Your task to perform on an android device: Open calendar and show me the fourth week of next month Image 0: 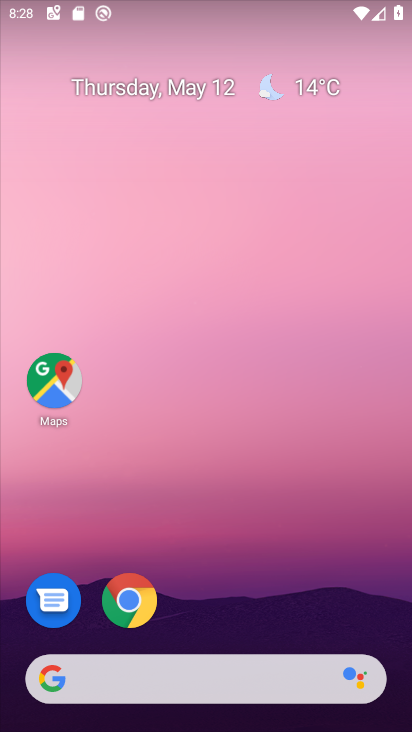
Step 0: drag from (331, 587) to (44, 243)
Your task to perform on an android device: Open calendar and show me the fourth week of next month Image 1: 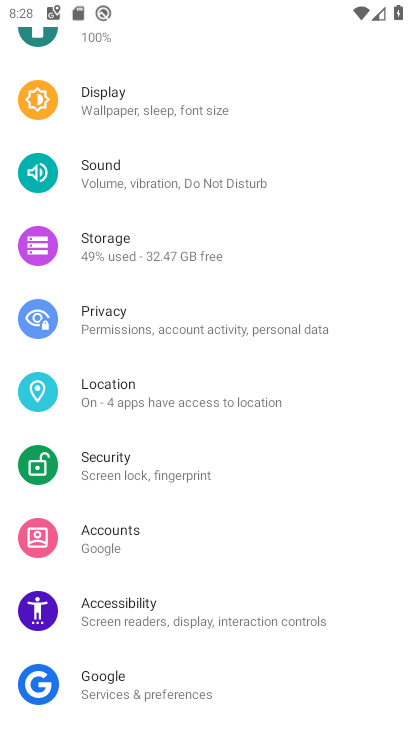
Step 1: press home button
Your task to perform on an android device: Open calendar and show me the fourth week of next month Image 2: 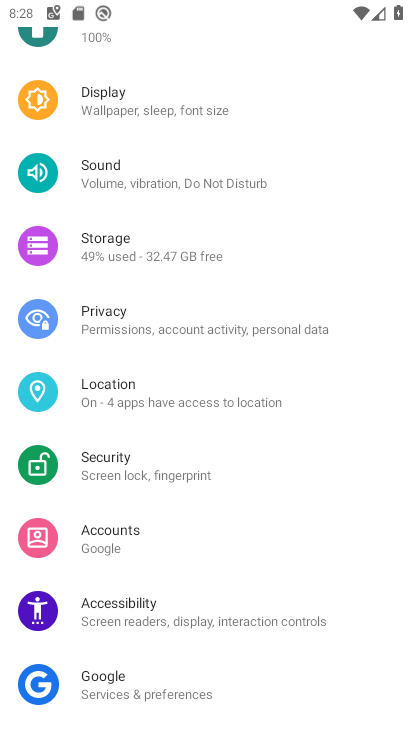
Step 2: press home button
Your task to perform on an android device: Open calendar and show me the fourth week of next month Image 3: 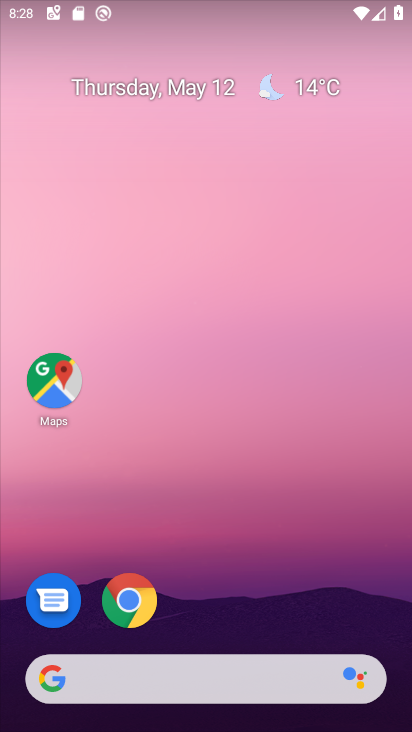
Step 3: drag from (219, 458) to (37, 92)
Your task to perform on an android device: Open calendar and show me the fourth week of next month Image 4: 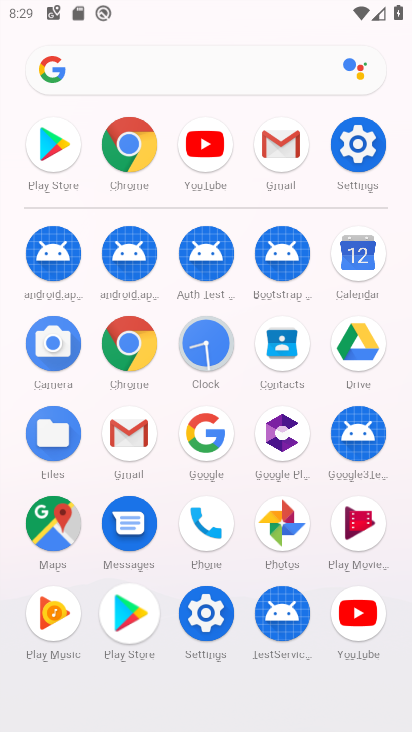
Step 4: click (359, 249)
Your task to perform on an android device: Open calendar and show me the fourth week of next month Image 5: 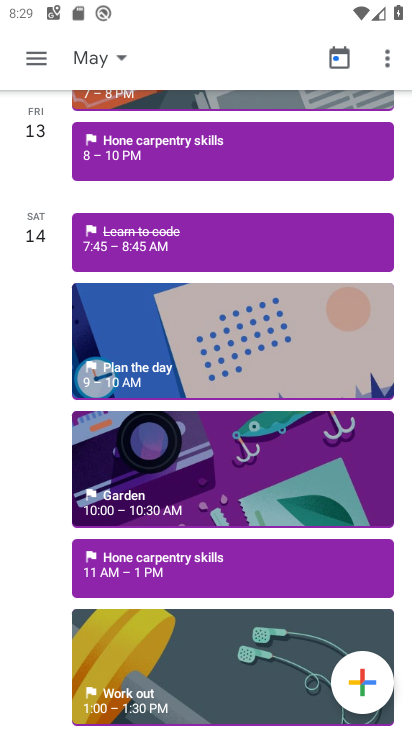
Step 5: drag from (145, 195) to (162, 446)
Your task to perform on an android device: Open calendar and show me the fourth week of next month Image 6: 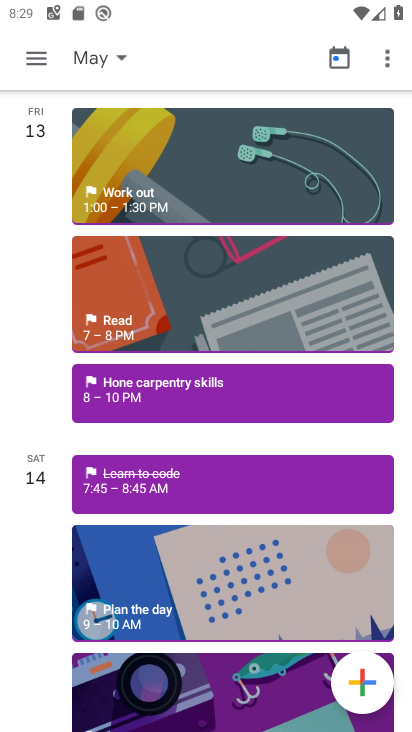
Step 6: click (123, 63)
Your task to perform on an android device: Open calendar and show me the fourth week of next month Image 7: 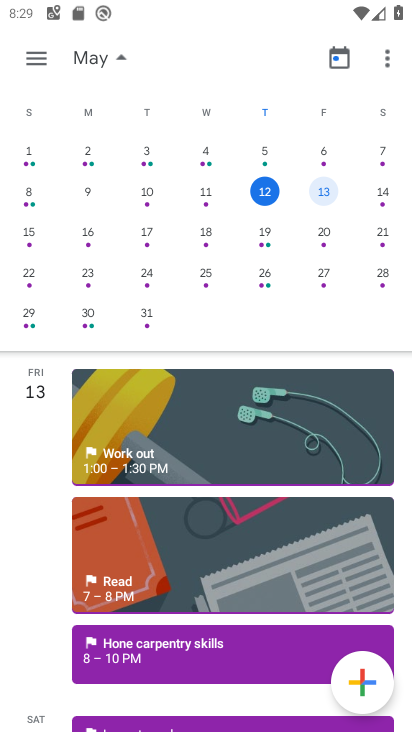
Step 7: drag from (322, 185) to (1, 256)
Your task to perform on an android device: Open calendar and show me the fourth week of next month Image 8: 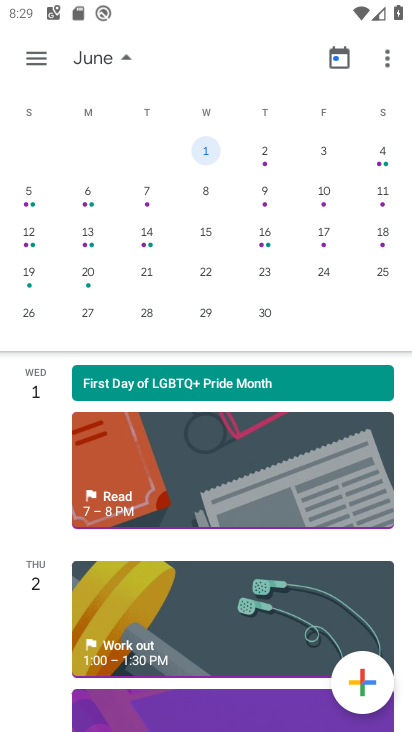
Step 8: drag from (289, 211) to (6, 228)
Your task to perform on an android device: Open calendar and show me the fourth week of next month Image 9: 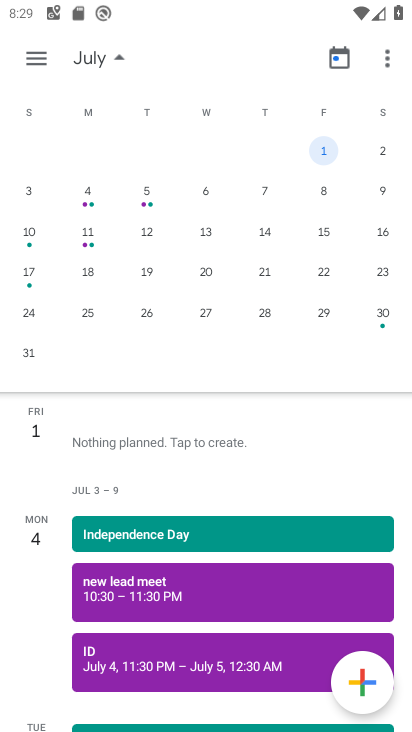
Step 9: drag from (111, 234) to (409, 252)
Your task to perform on an android device: Open calendar and show me the fourth week of next month Image 10: 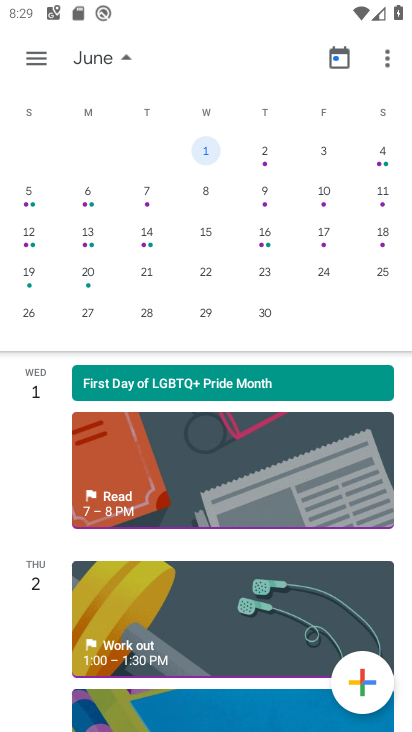
Step 10: drag from (183, 204) to (377, 311)
Your task to perform on an android device: Open calendar and show me the fourth week of next month Image 11: 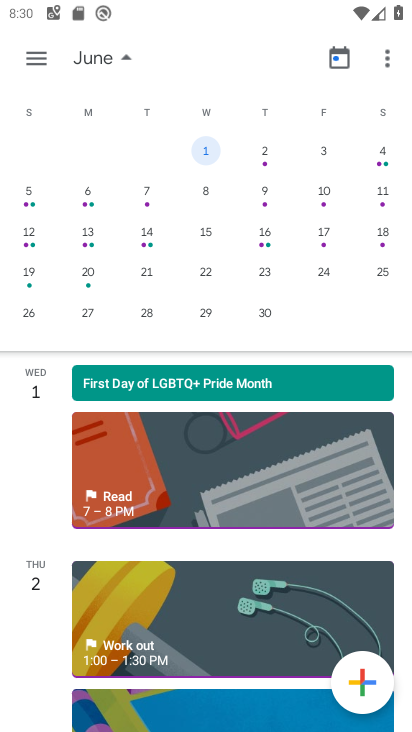
Step 11: click (199, 267)
Your task to perform on an android device: Open calendar and show me the fourth week of next month Image 12: 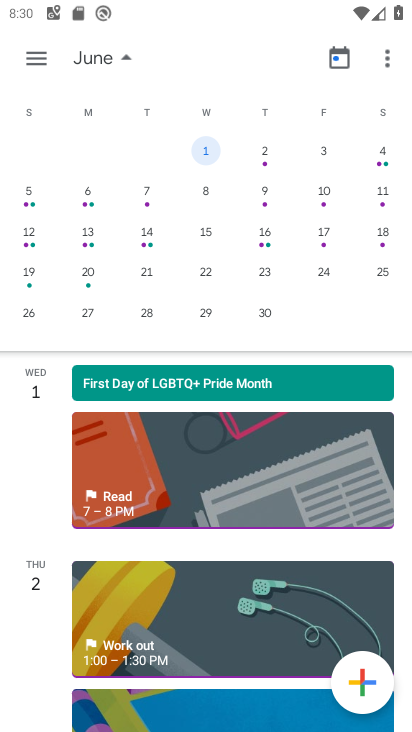
Step 12: click (200, 267)
Your task to perform on an android device: Open calendar and show me the fourth week of next month Image 13: 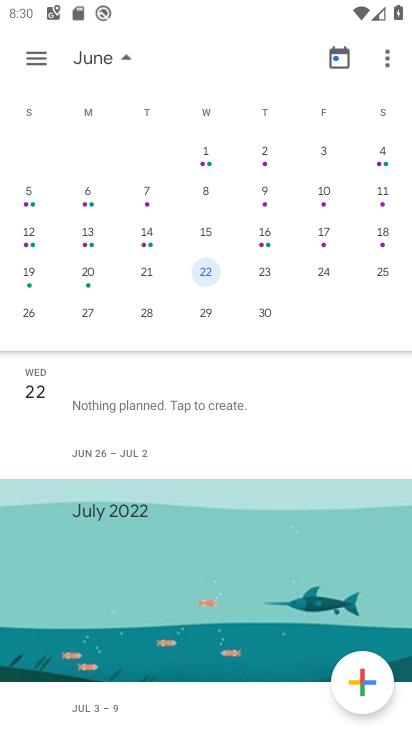
Step 13: click (200, 267)
Your task to perform on an android device: Open calendar and show me the fourth week of next month Image 14: 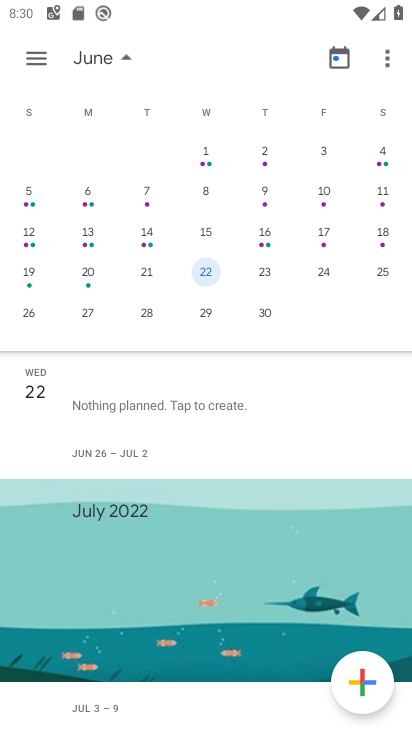
Step 14: click (200, 267)
Your task to perform on an android device: Open calendar and show me the fourth week of next month Image 15: 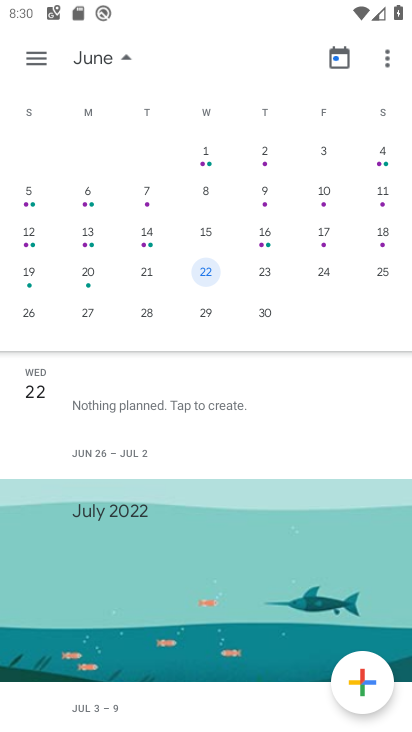
Step 15: click (200, 267)
Your task to perform on an android device: Open calendar and show me the fourth week of next month Image 16: 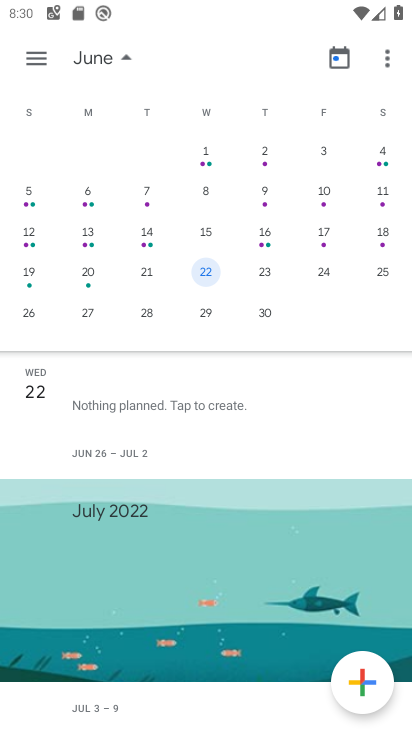
Step 16: task complete